Your task to perform on an android device: change the clock display to digital Image 0: 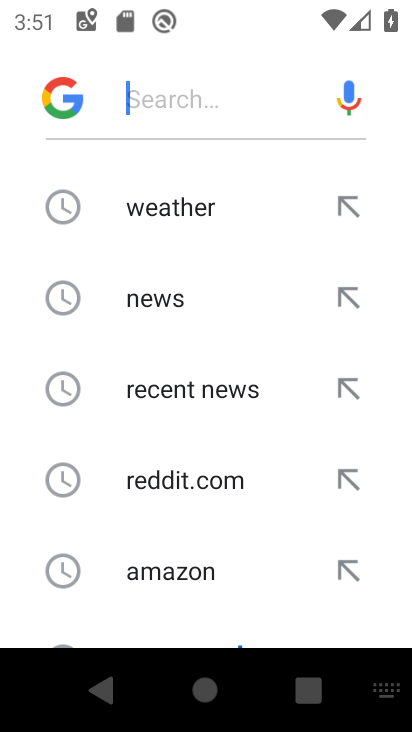
Step 0: press home button
Your task to perform on an android device: change the clock display to digital Image 1: 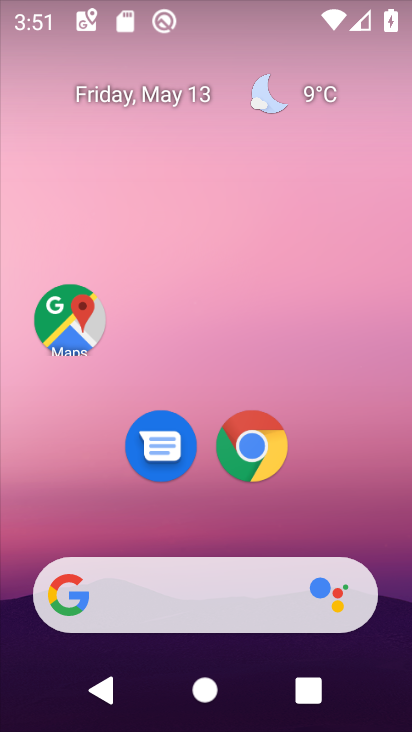
Step 1: drag from (242, 529) to (242, 65)
Your task to perform on an android device: change the clock display to digital Image 2: 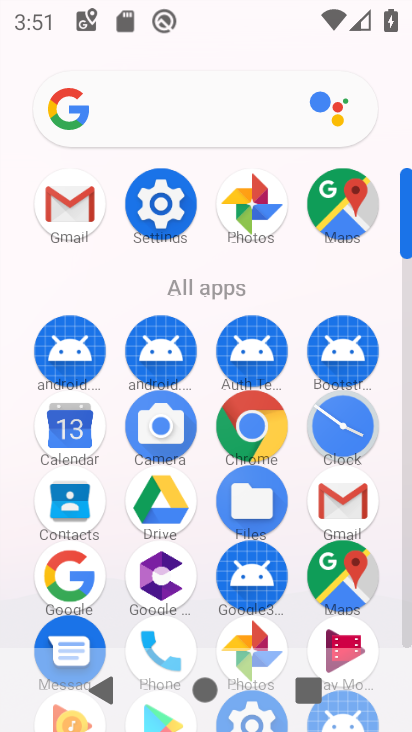
Step 2: click (340, 423)
Your task to perform on an android device: change the clock display to digital Image 3: 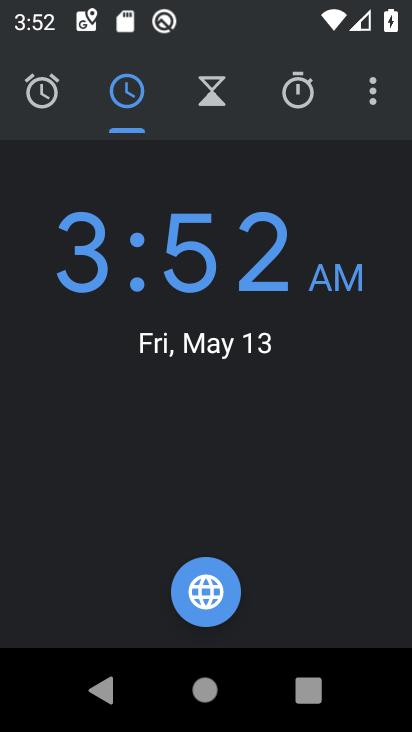
Step 3: click (366, 84)
Your task to perform on an android device: change the clock display to digital Image 4: 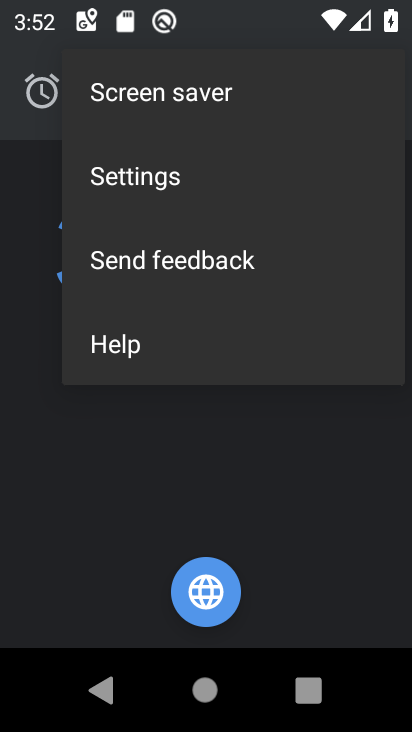
Step 4: click (244, 182)
Your task to perform on an android device: change the clock display to digital Image 5: 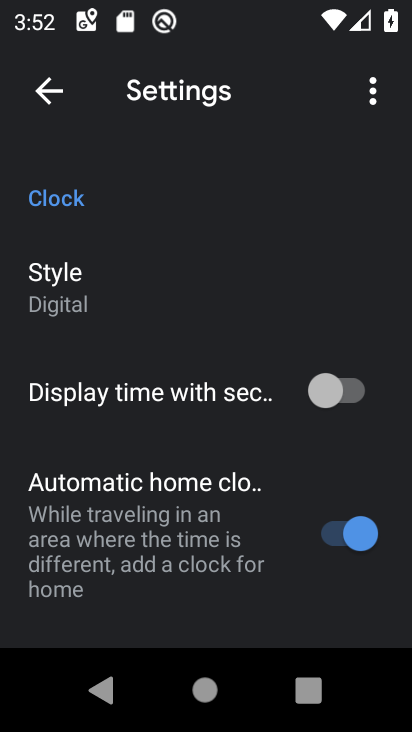
Step 5: click (82, 309)
Your task to perform on an android device: change the clock display to digital Image 6: 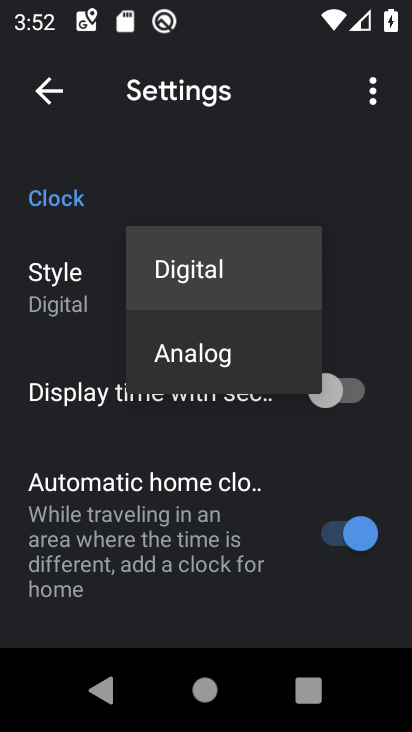
Step 6: click (219, 273)
Your task to perform on an android device: change the clock display to digital Image 7: 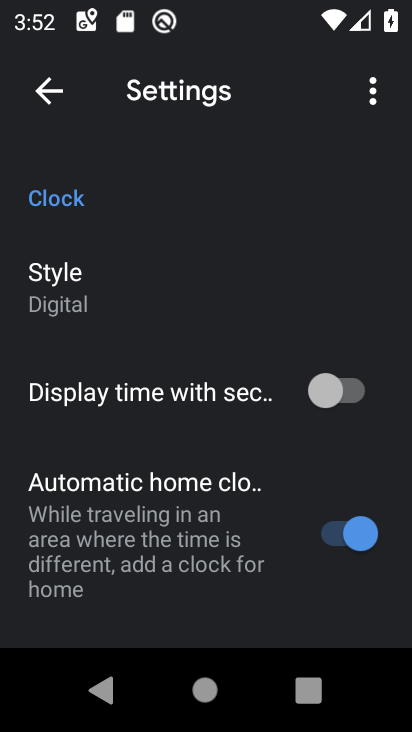
Step 7: task complete